Your task to perform on an android device: turn on wifi Image 0: 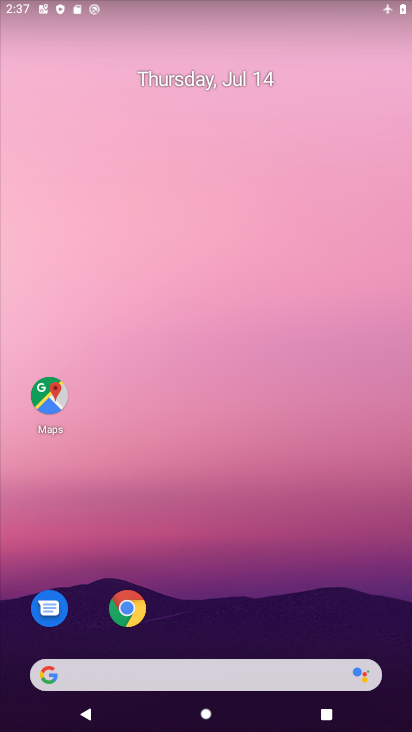
Step 0: drag from (78, 2) to (127, 523)
Your task to perform on an android device: turn on wifi Image 1: 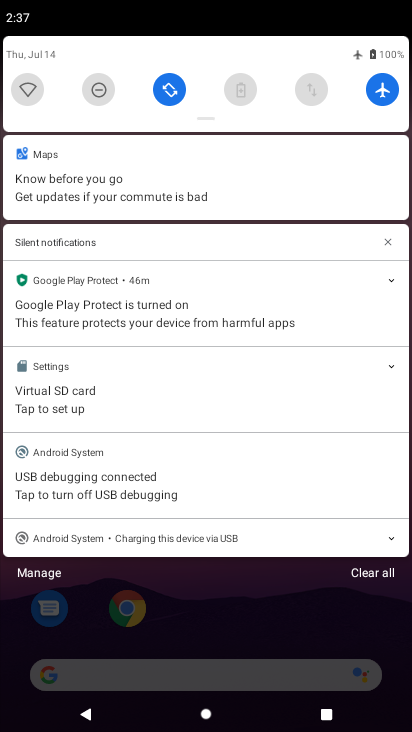
Step 1: click (31, 86)
Your task to perform on an android device: turn on wifi Image 2: 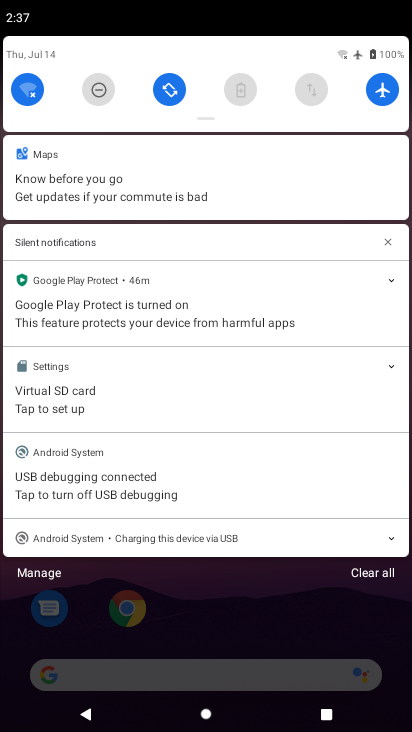
Step 2: task complete